Your task to perform on an android device: Set the phone to "Do not disturb". Image 0: 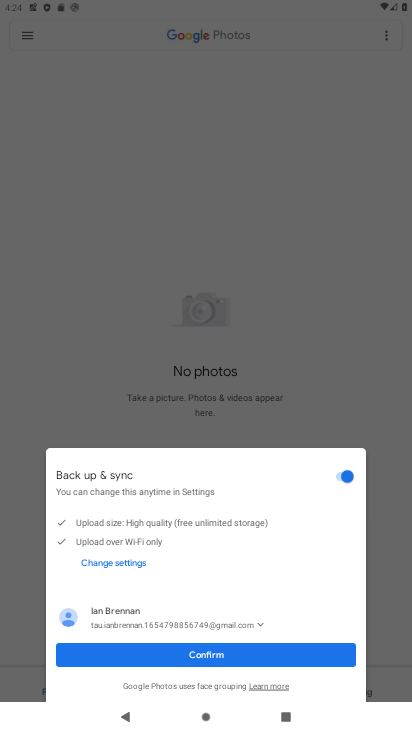
Step 0: press home button
Your task to perform on an android device: Set the phone to "Do not disturb". Image 1: 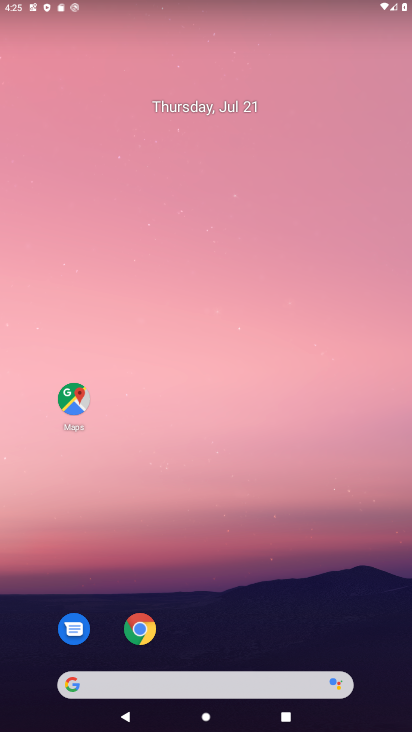
Step 1: drag from (242, 481) to (175, 54)
Your task to perform on an android device: Set the phone to "Do not disturb". Image 2: 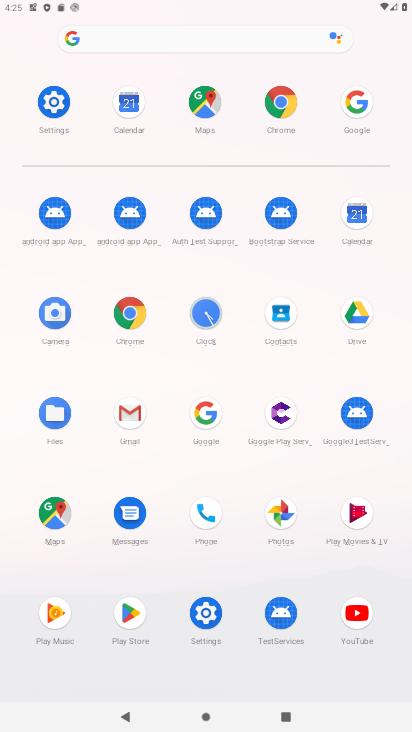
Step 2: click (56, 98)
Your task to perform on an android device: Set the phone to "Do not disturb". Image 3: 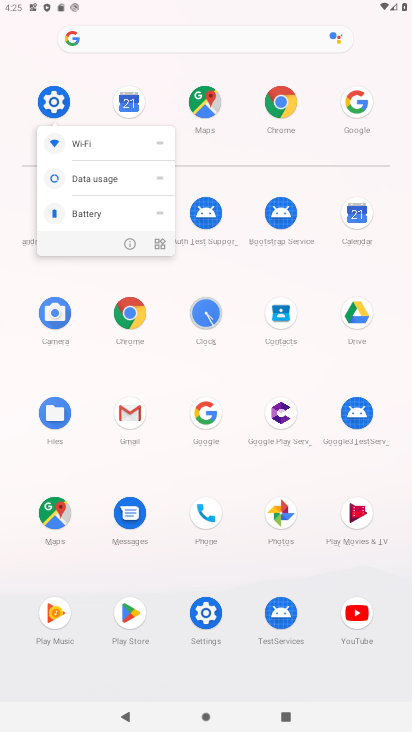
Step 3: click (59, 107)
Your task to perform on an android device: Set the phone to "Do not disturb". Image 4: 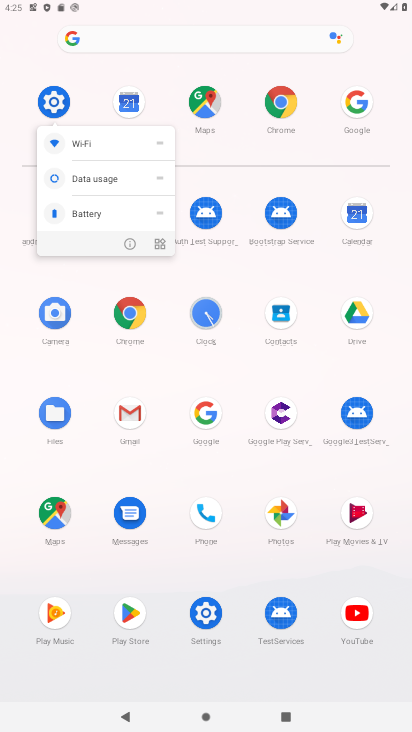
Step 4: click (61, 98)
Your task to perform on an android device: Set the phone to "Do not disturb". Image 5: 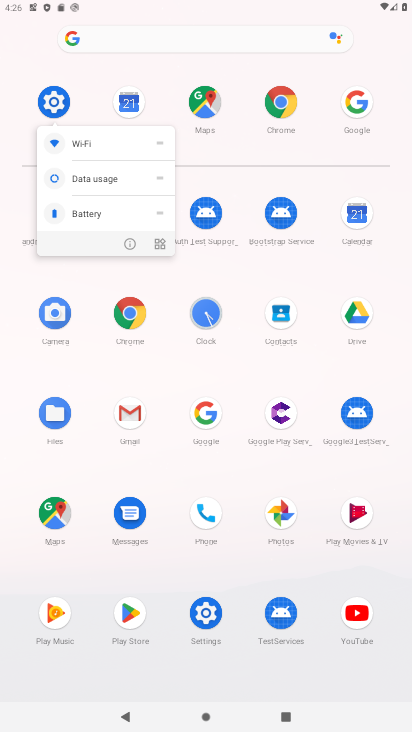
Step 5: click (61, 97)
Your task to perform on an android device: Set the phone to "Do not disturb". Image 6: 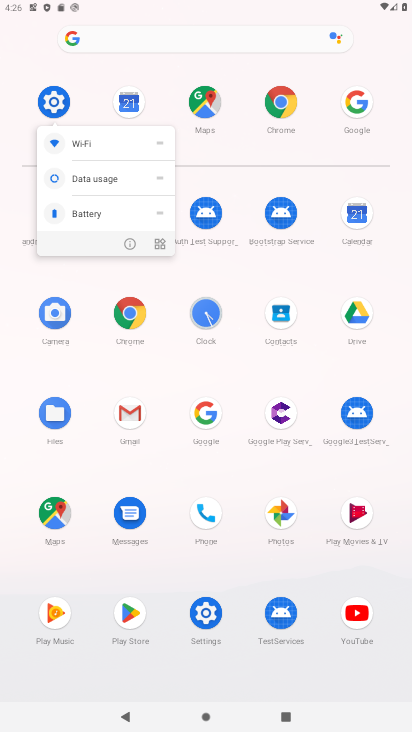
Step 6: click (61, 97)
Your task to perform on an android device: Set the phone to "Do not disturb". Image 7: 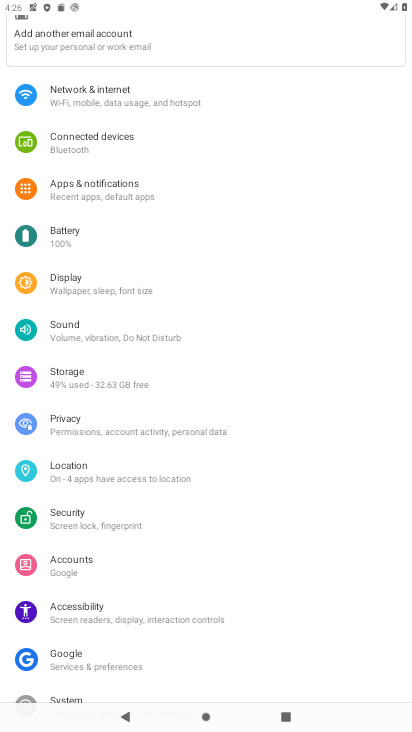
Step 7: drag from (114, 511) to (101, 221)
Your task to perform on an android device: Set the phone to "Do not disturb". Image 8: 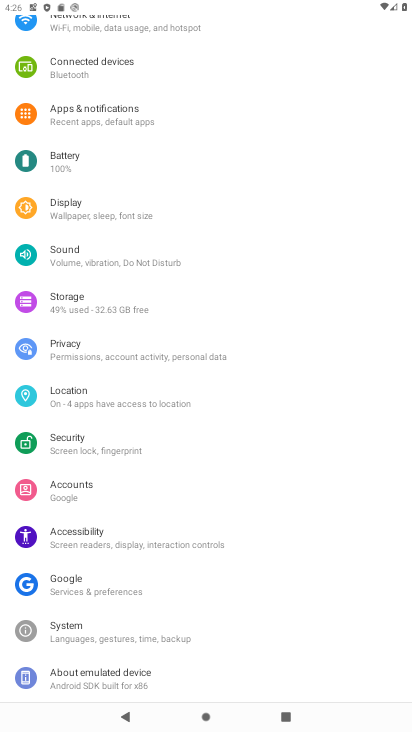
Step 8: click (91, 254)
Your task to perform on an android device: Set the phone to "Do not disturb". Image 9: 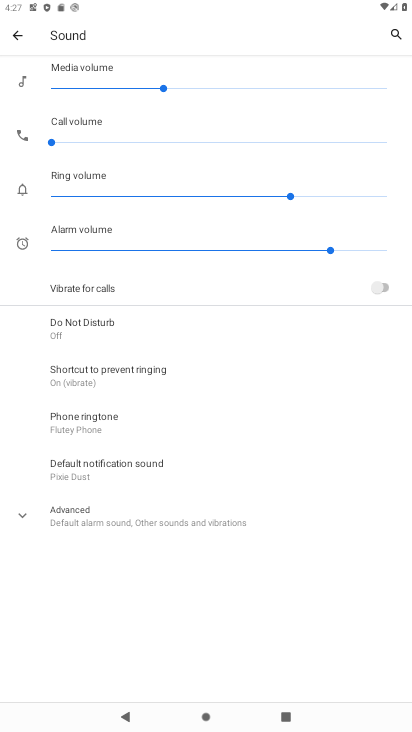
Step 9: task complete